Your task to perform on an android device: See recent photos Image 0: 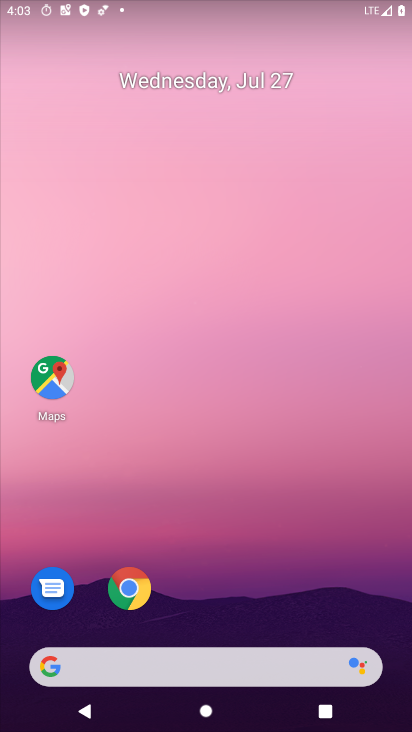
Step 0: press home button
Your task to perform on an android device: See recent photos Image 1: 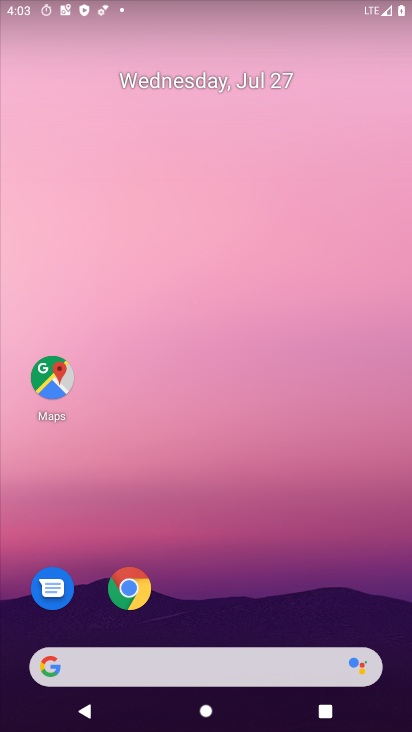
Step 1: drag from (235, 626) to (127, 11)
Your task to perform on an android device: See recent photos Image 2: 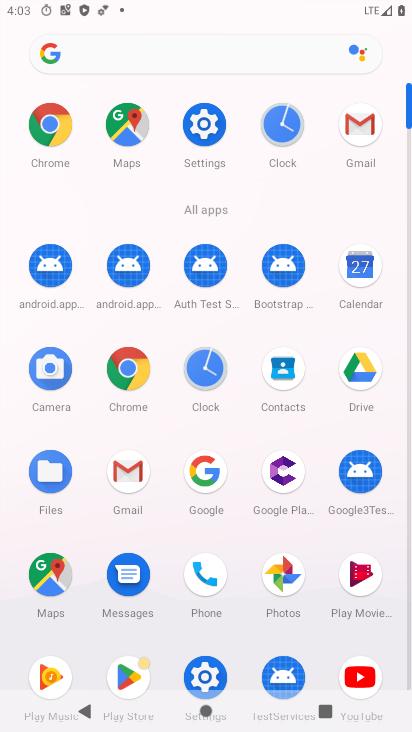
Step 2: click (285, 575)
Your task to perform on an android device: See recent photos Image 3: 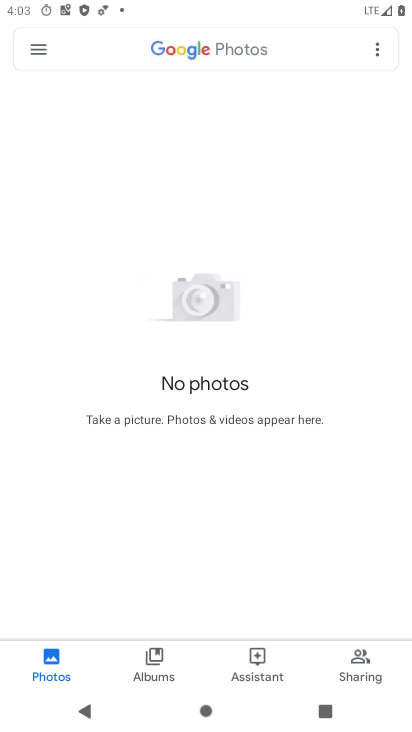
Step 3: task complete